Your task to perform on an android device: uninstall "Google Home" Image 0: 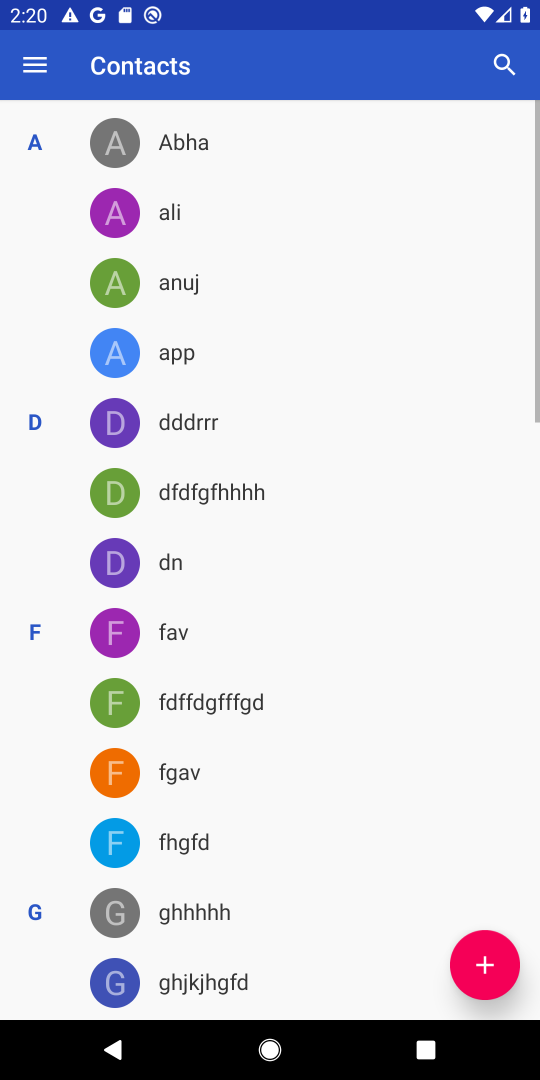
Step 0: press home button
Your task to perform on an android device: uninstall "Google Home" Image 1: 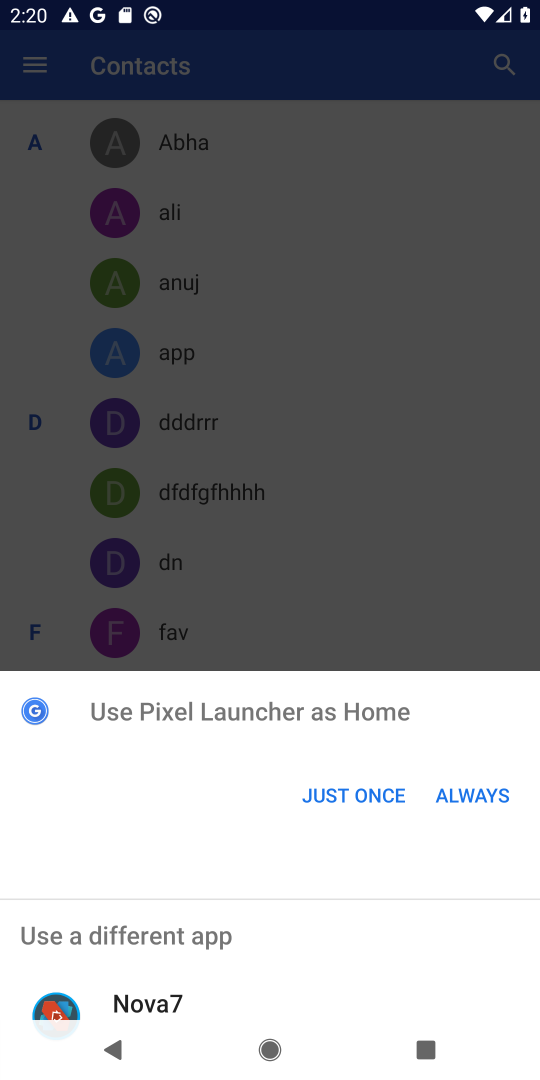
Step 1: click (376, 791)
Your task to perform on an android device: uninstall "Google Home" Image 2: 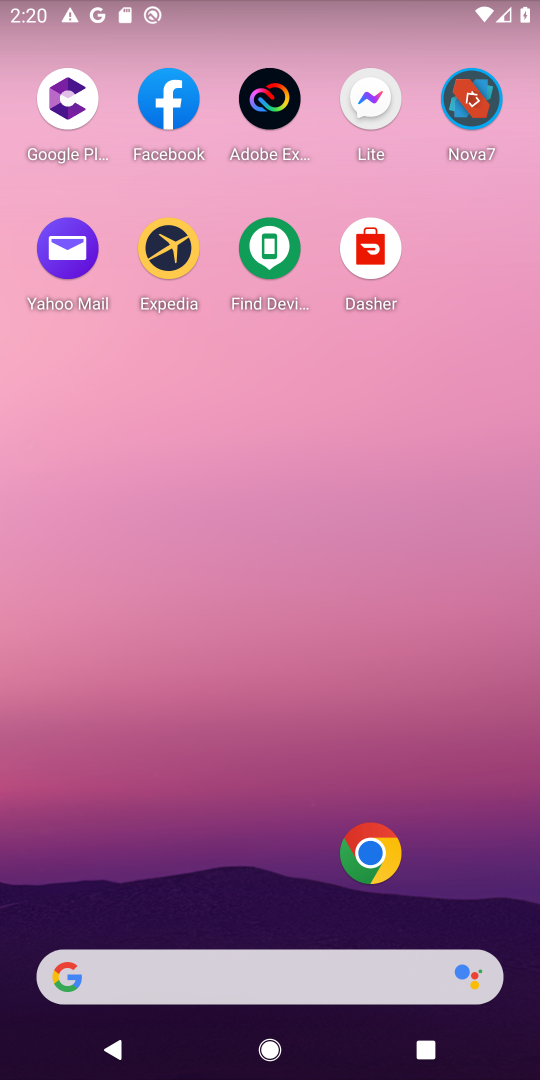
Step 2: drag from (522, 972) to (480, 267)
Your task to perform on an android device: uninstall "Google Home" Image 3: 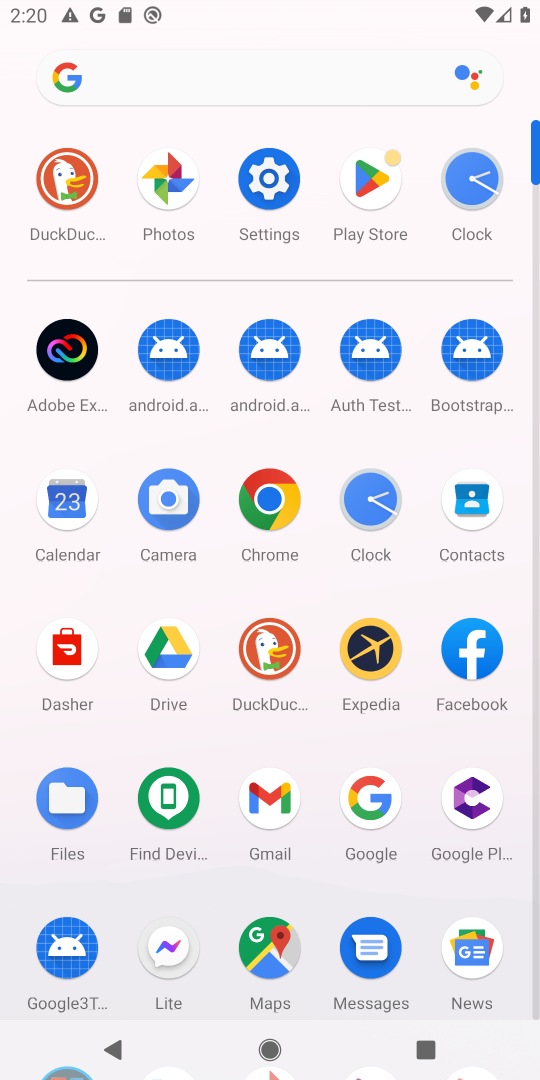
Step 3: click (539, 990)
Your task to perform on an android device: uninstall "Google Home" Image 4: 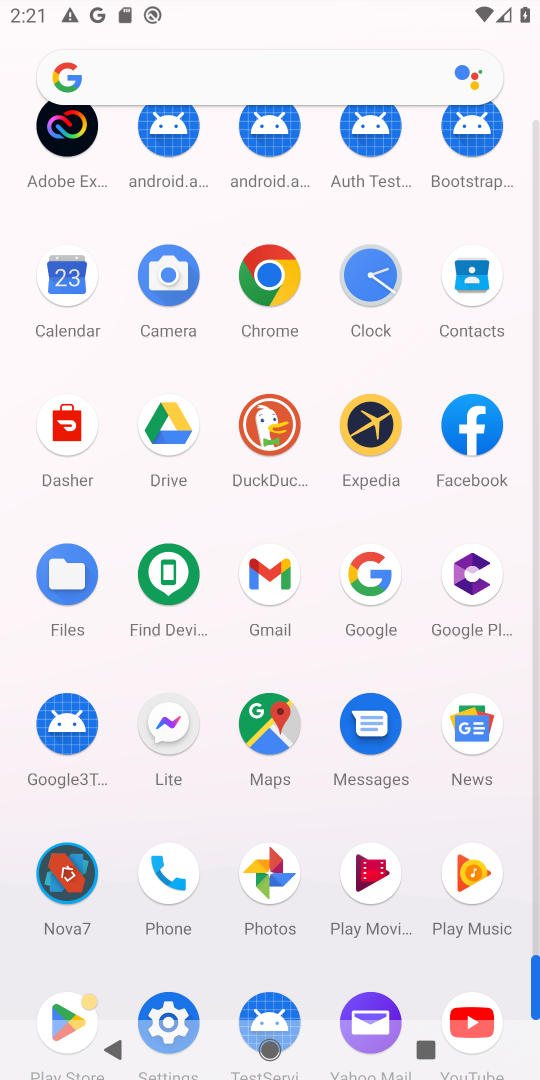
Step 4: click (72, 1006)
Your task to perform on an android device: uninstall "Google Home" Image 5: 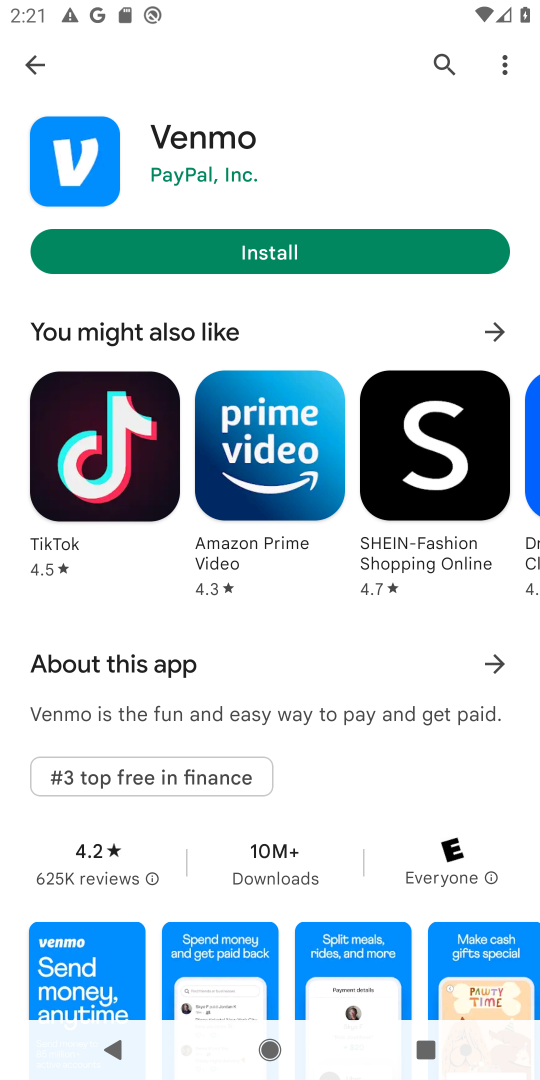
Step 5: click (443, 59)
Your task to perform on an android device: uninstall "Google Home" Image 6: 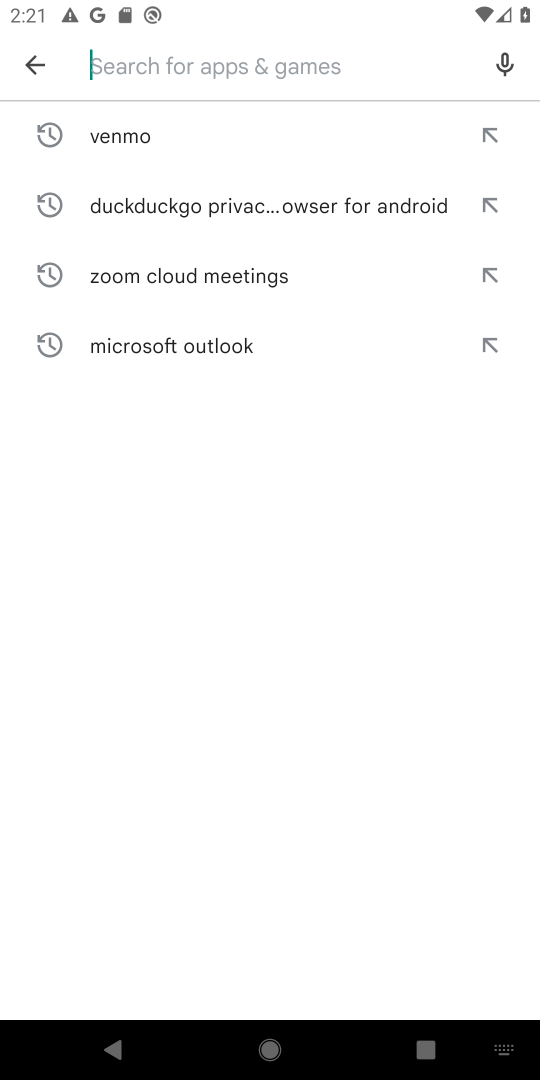
Step 6: type "Google Home"
Your task to perform on an android device: uninstall "Google Home" Image 7: 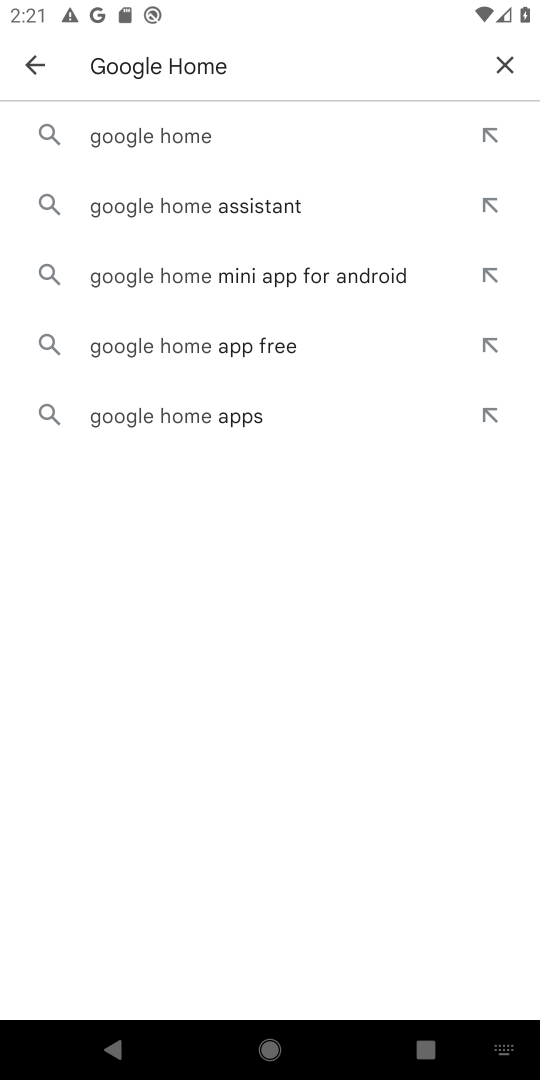
Step 7: click (154, 138)
Your task to perform on an android device: uninstall "Google Home" Image 8: 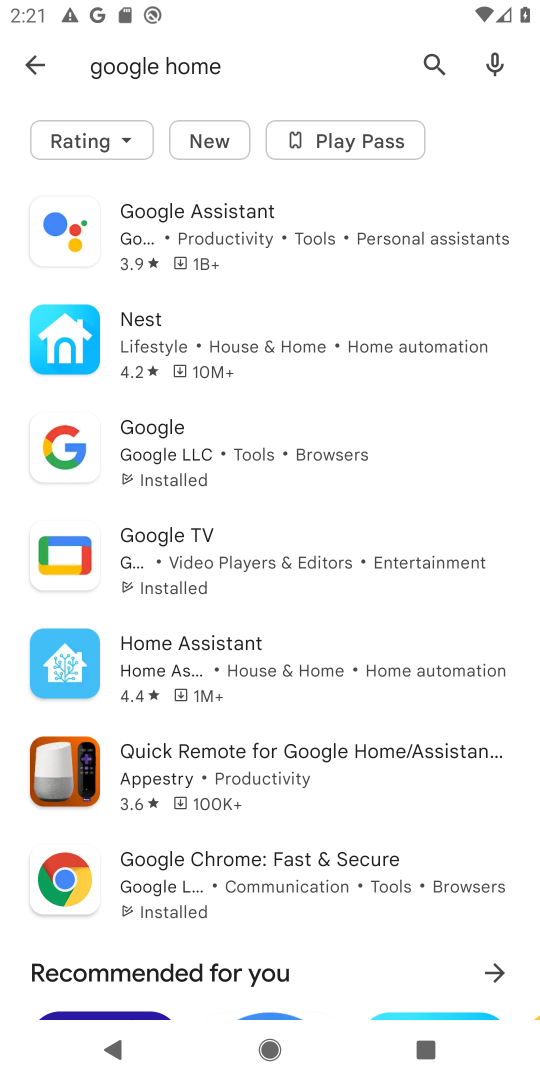
Step 8: drag from (348, 792) to (350, 385)
Your task to perform on an android device: uninstall "Google Home" Image 9: 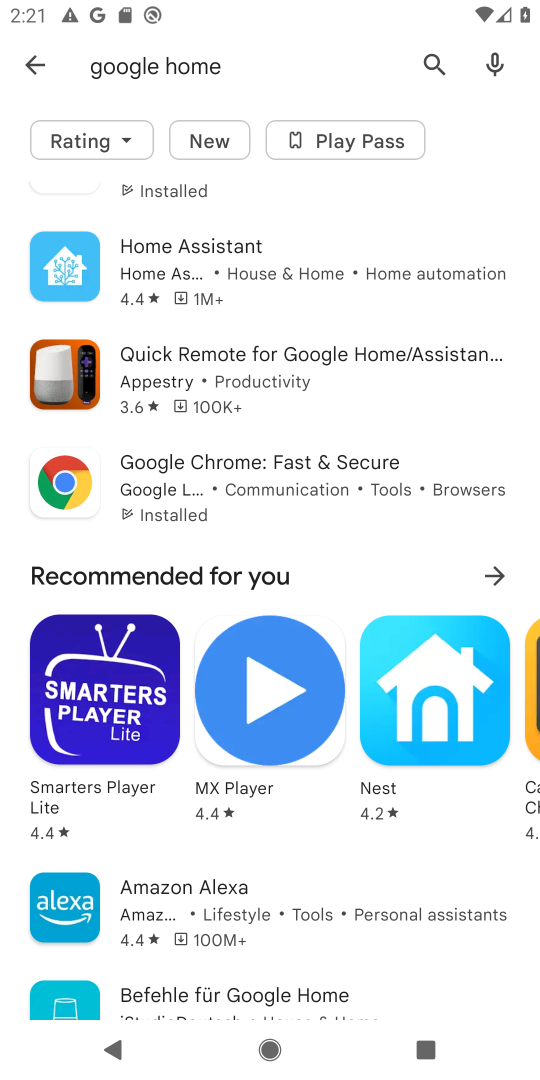
Step 9: drag from (368, 852) to (336, 321)
Your task to perform on an android device: uninstall "Google Home" Image 10: 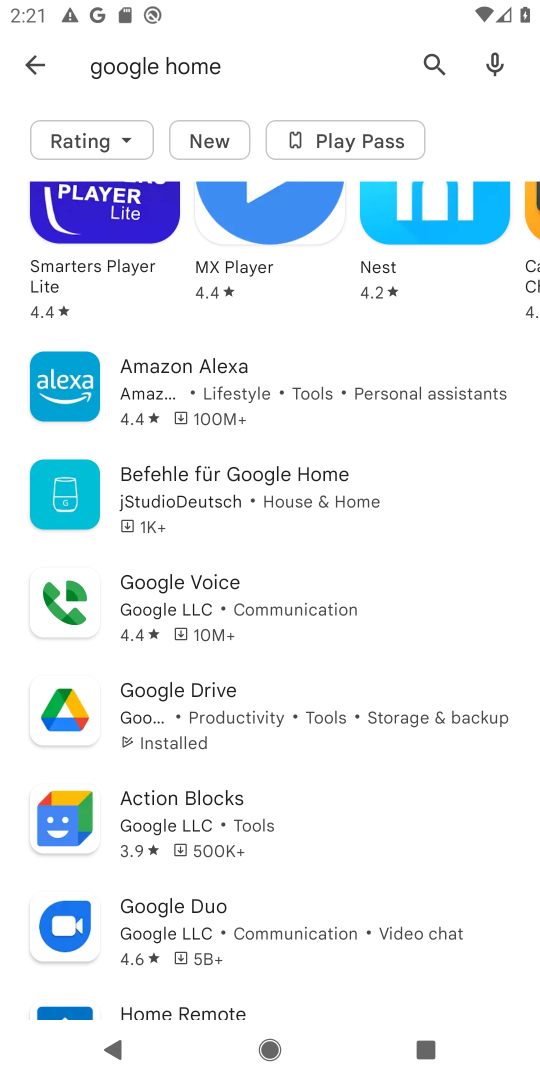
Step 10: drag from (355, 847) to (318, 434)
Your task to perform on an android device: uninstall "Google Home" Image 11: 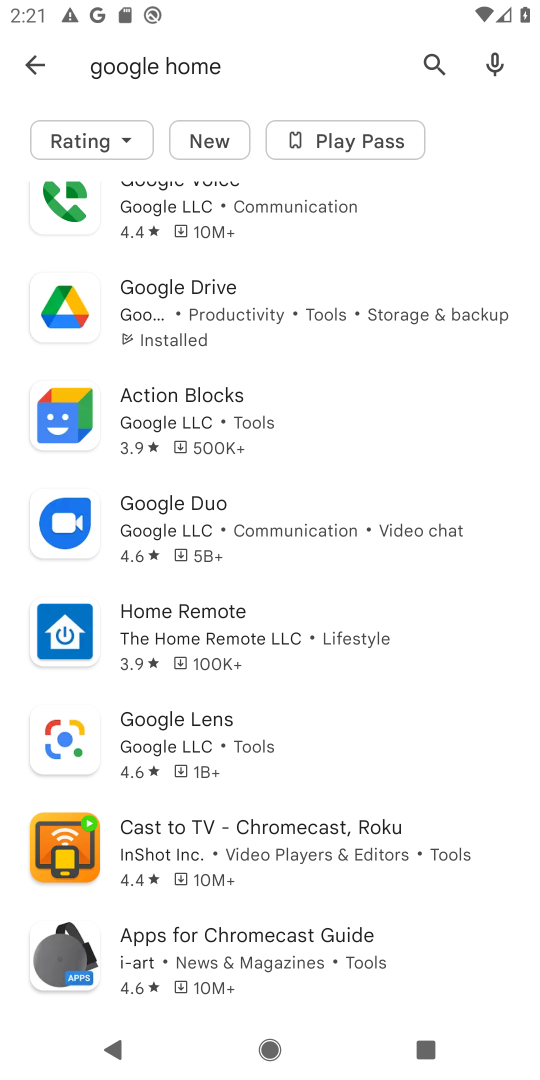
Step 11: drag from (346, 856) to (340, 458)
Your task to perform on an android device: uninstall "Google Home" Image 12: 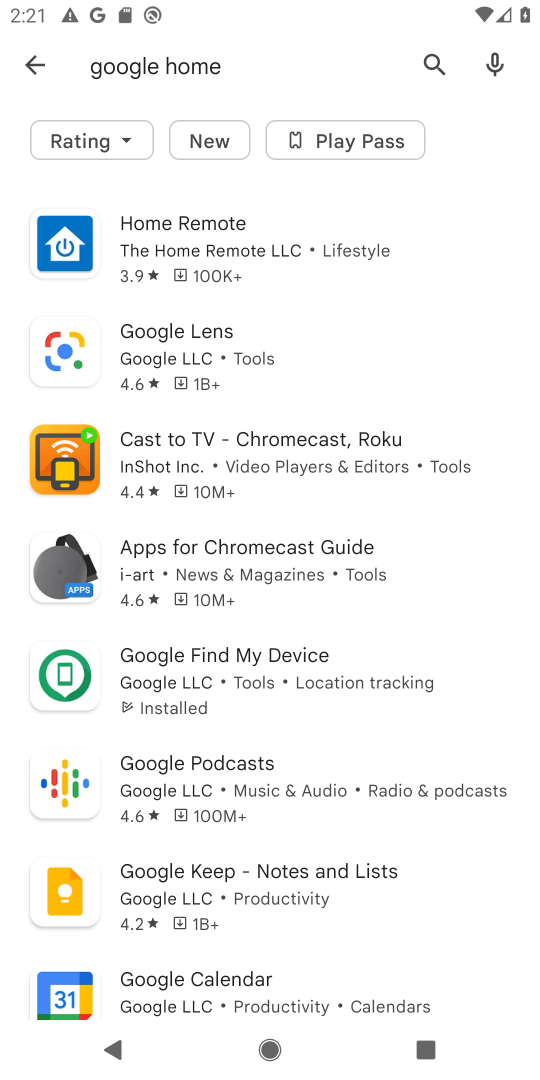
Step 12: drag from (391, 866) to (385, 421)
Your task to perform on an android device: uninstall "Google Home" Image 13: 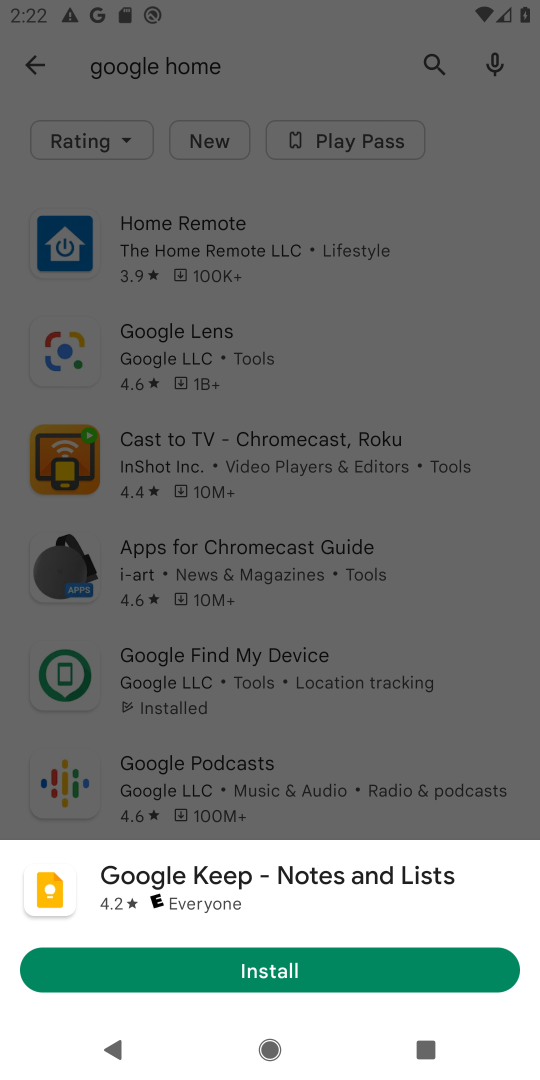
Step 13: click (433, 624)
Your task to perform on an android device: uninstall "Google Home" Image 14: 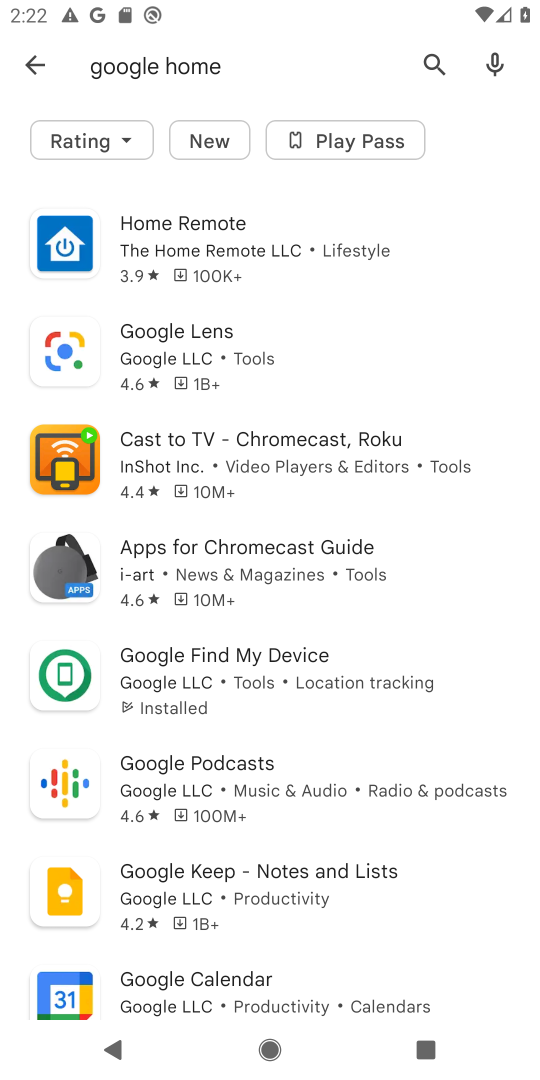
Step 14: drag from (384, 820) to (386, 490)
Your task to perform on an android device: uninstall "Google Home" Image 15: 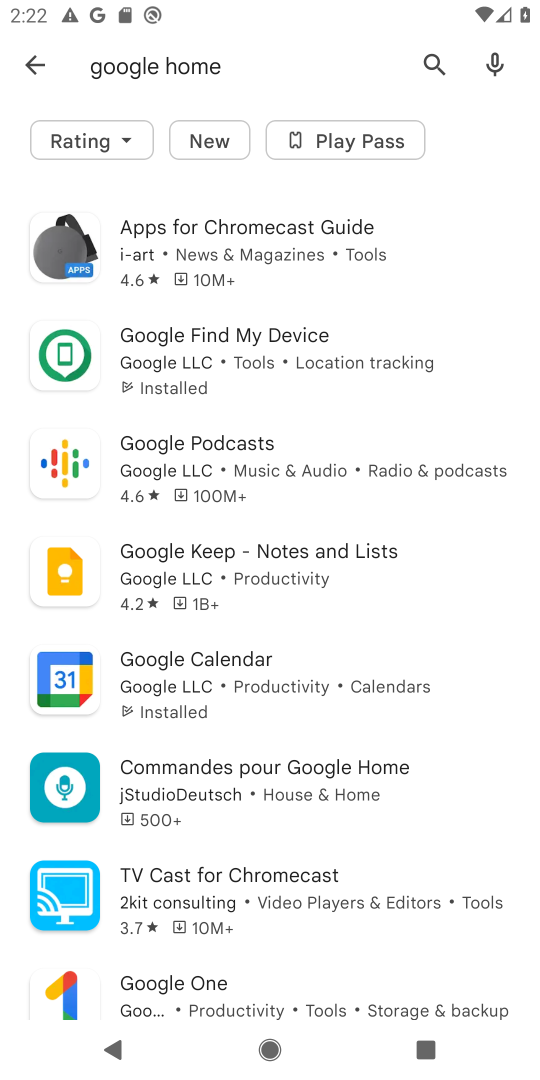
Step 15: drag from (403, 843) to (393, 477)
Your task to perform on an android device: uninstall "Google Home" Image 16: 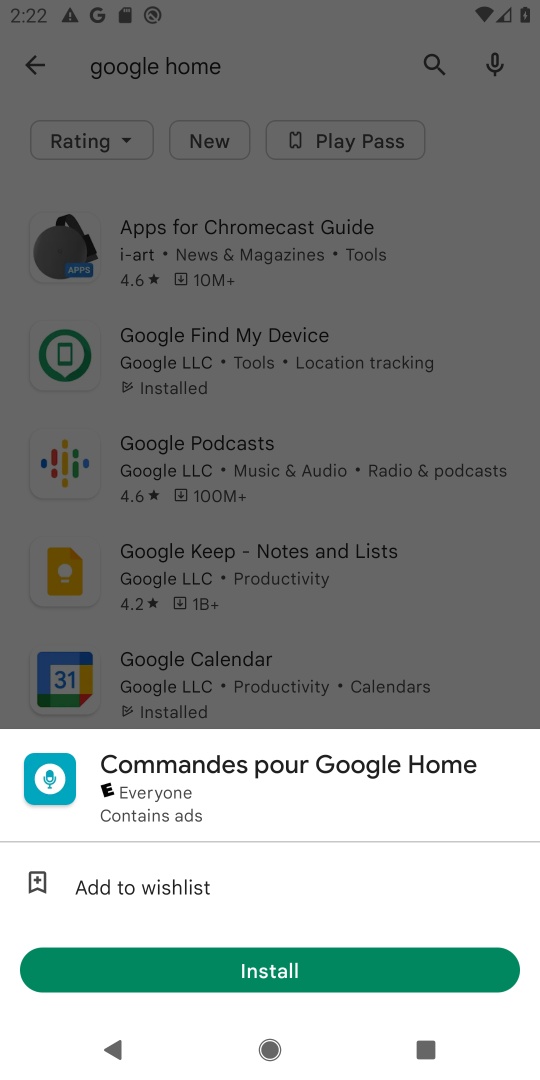
Step 16: click (436, 588)
Your task to perform on an android device: uninstall "Google Home" Image 17: 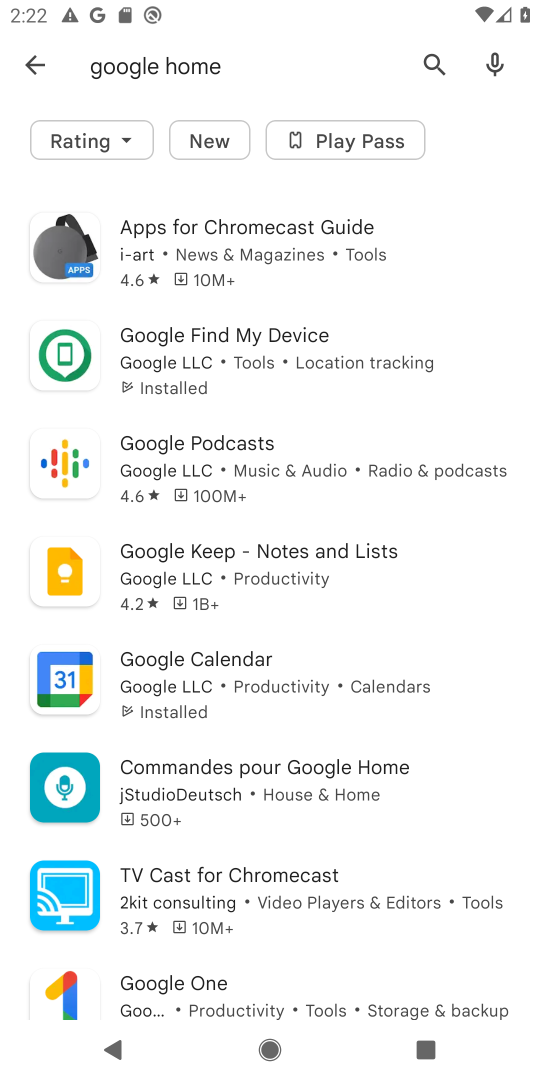
Step 17: drag from (421, 836) to (393, 368)
Your task to perform on an android device: uninstall "Google Home" Image 18: 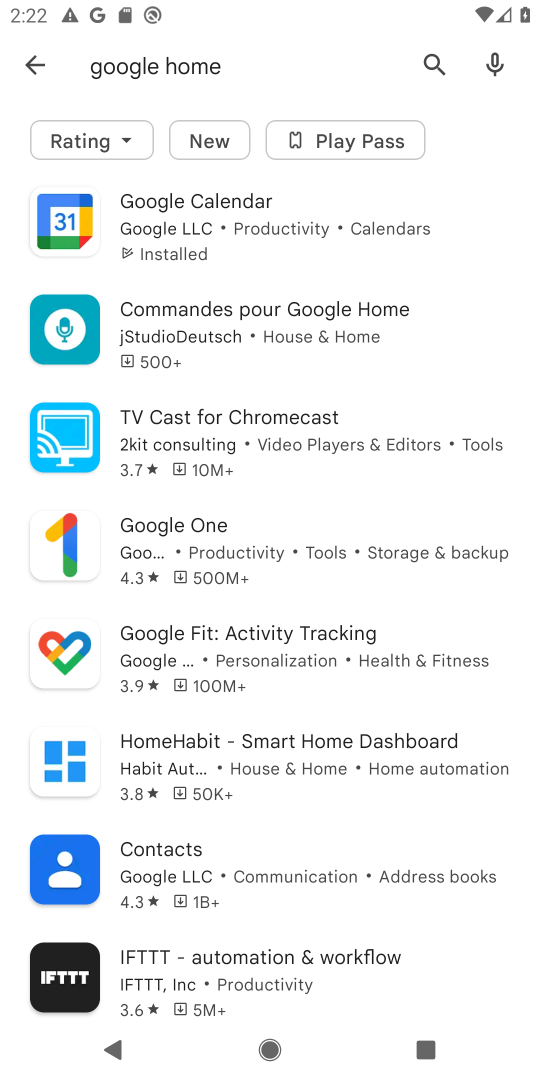
Step 18: drag from (424, 870) to (389, 336)
Your task to perform on an android device: uninstall "Google Home" Image 19: 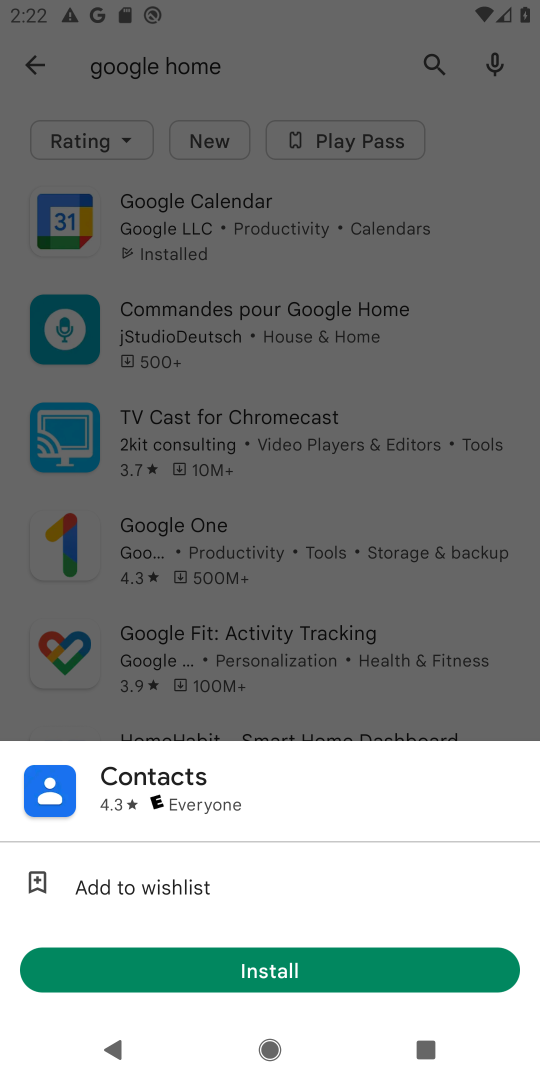
Step 19: click (433, 620)
Your task to perform on an android device: uninstall "Google Home" Image 20: 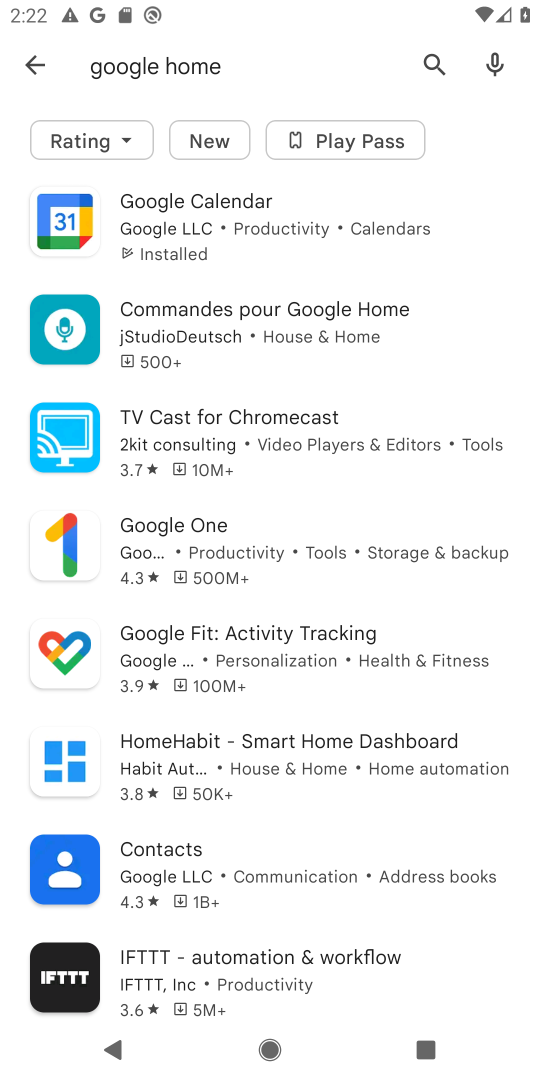
Step 20: task complete